Your task to perform on an android device: open a bookmark in the chrome app Image 0: 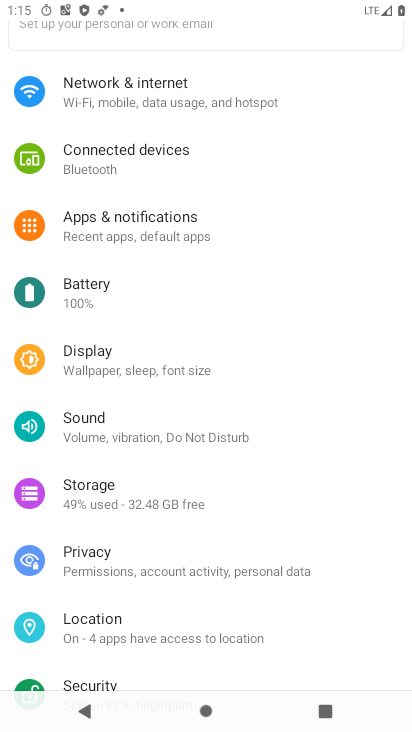
Step 0: press home button
Your task to perform on an android device: open a bookmark in the chrome app Image 1: 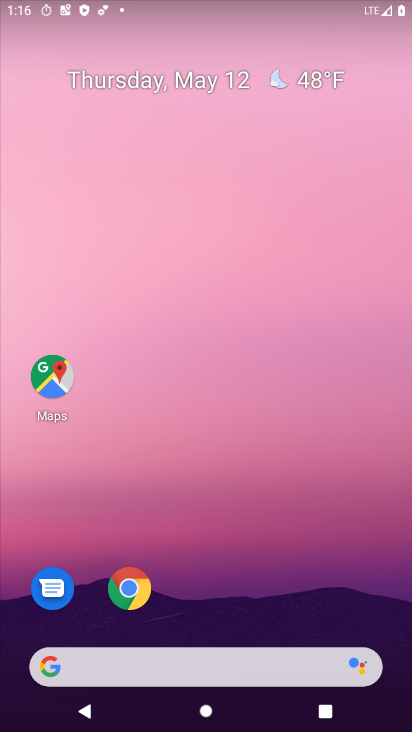
Step 1: click (129, 590)
Your task to perform on an android device: open a bookmark in the chrome app Image 2: 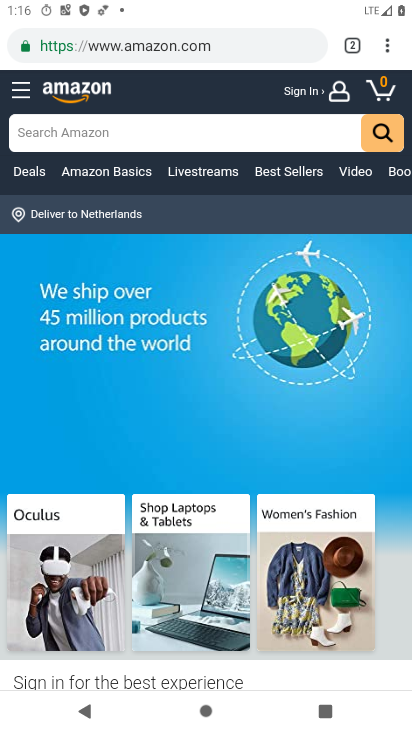
Step 2: click (382, 48)
Your task to perform on an android device: open a bookmark in the chrome app Image 3: 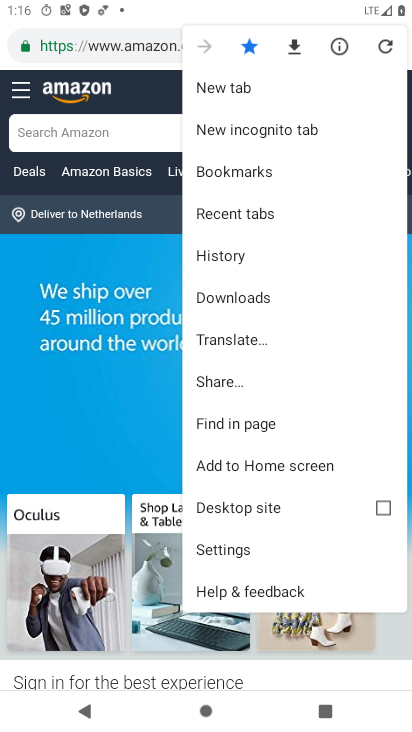
Step 3: click (234, 175)
Your task to perform on an android device: open a bookmark in the chrome app Image 4: 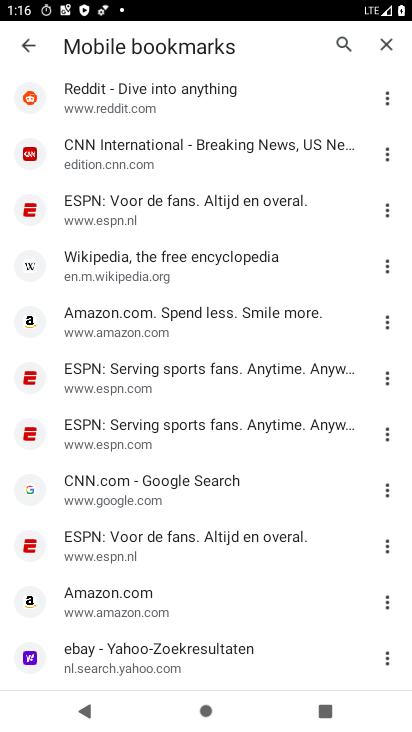
Step 4: click (116, 600)
Your task to perform on an android device: open a bookmark in the chrome app Image 5: 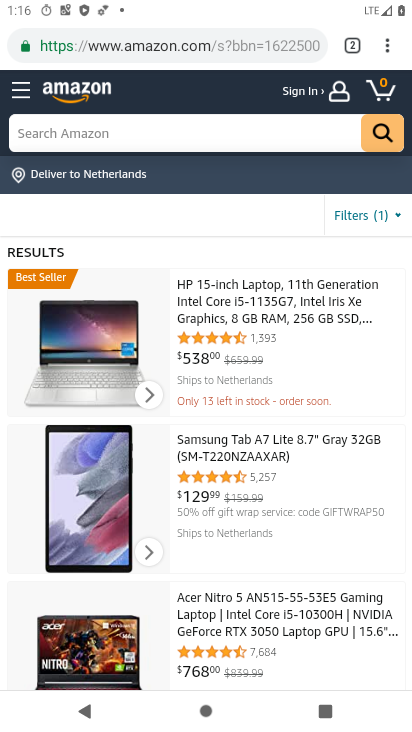
Step 5: task complete